Your task to perform on an android device: Open location settings Image 0: 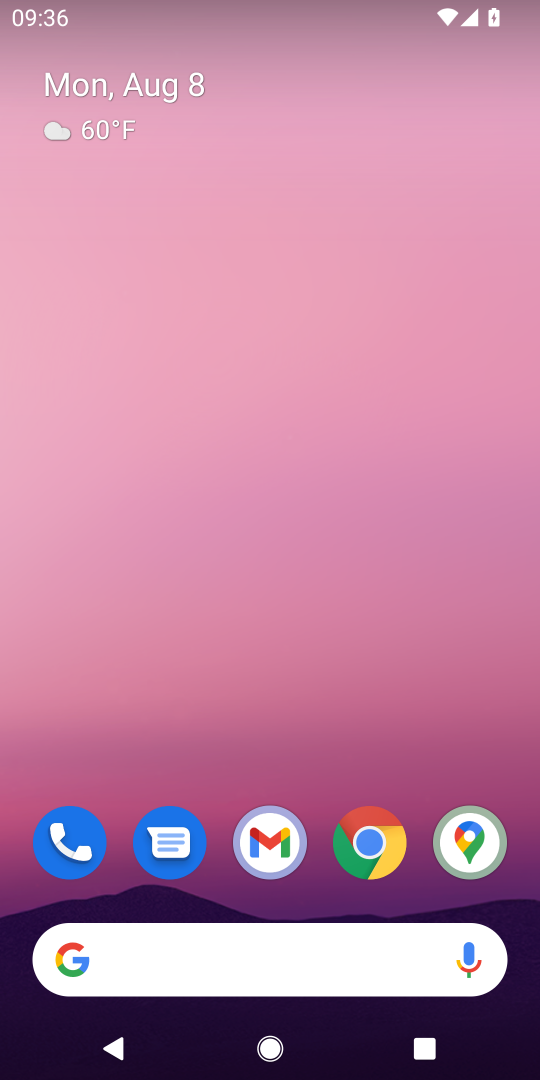
Step 0: click (365, 104)
Your task to perform on an android device: Open location settings Image 1: 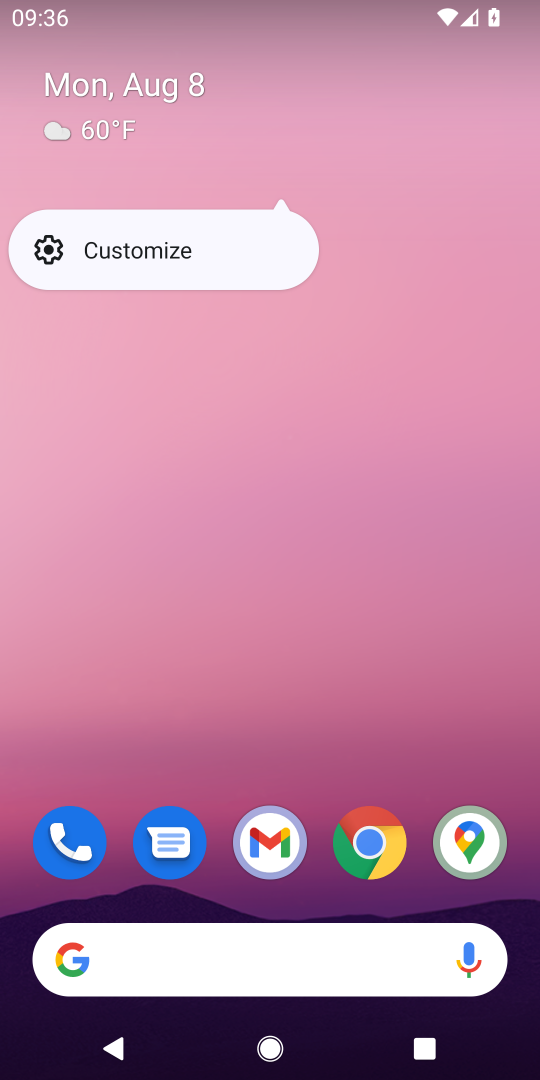
Step 1: click (217, 637)
Your task to perform on an android device: Open location settings Image 2: 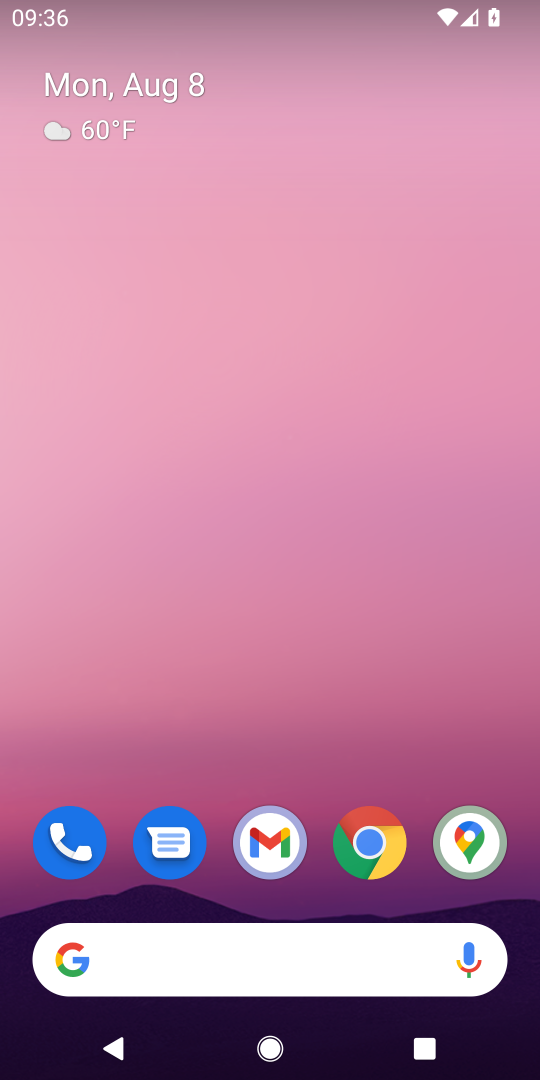
Step 2: drag from (266, 716) to (289, 23)
Your task to perform on an android device: Open location settings Image 3: 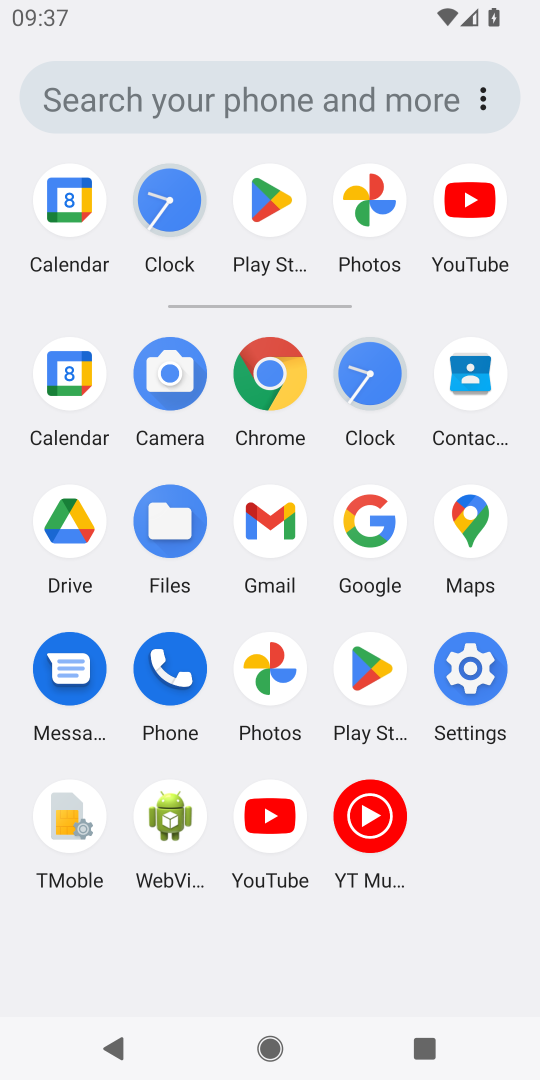
Step 3: click (460, 664)
Your task to perform on an android device: Open location settings Image 4: 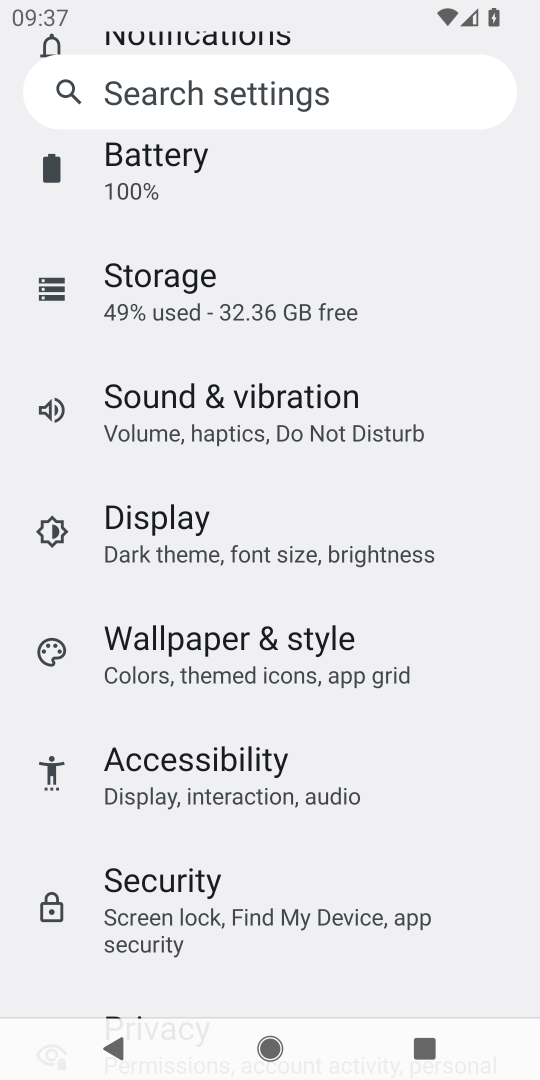
Step 4: drag from (219, 887) to (219, 140)
Your task to perform on an android device: Open location settings Image 5: 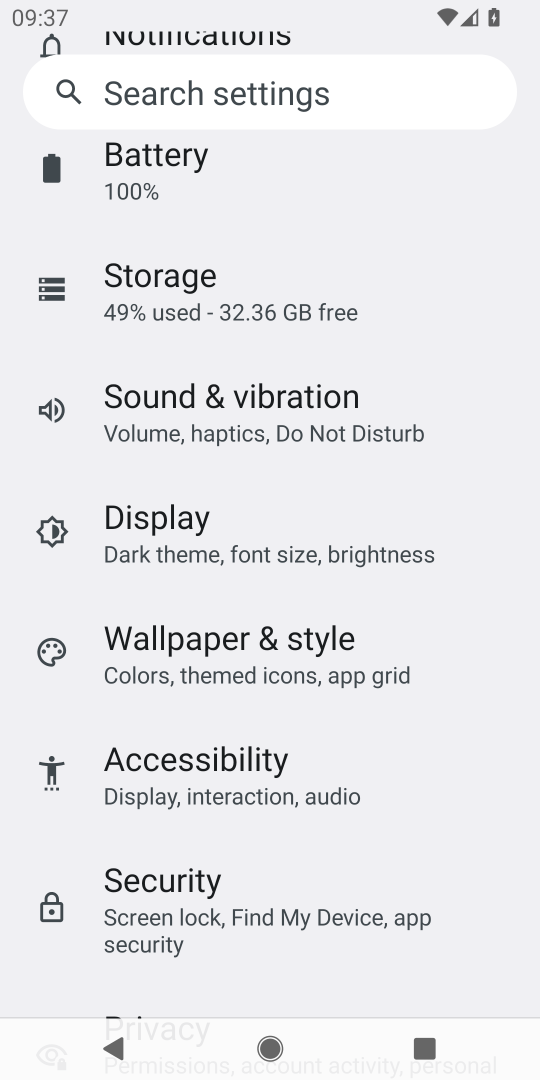
Step 5: drag from (288, 396) to (290, 47)
Your task to perform on an android device: Open location settings Image 6: 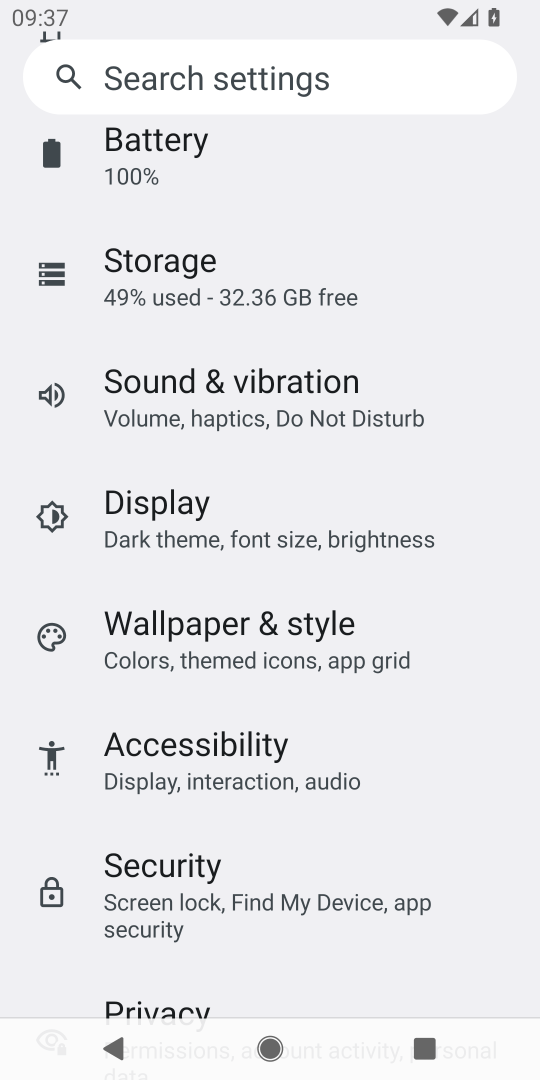
Step 6: drag from (222, 877) to (222, 455)
Your task to perform on an android device: Open location settings Image 7: 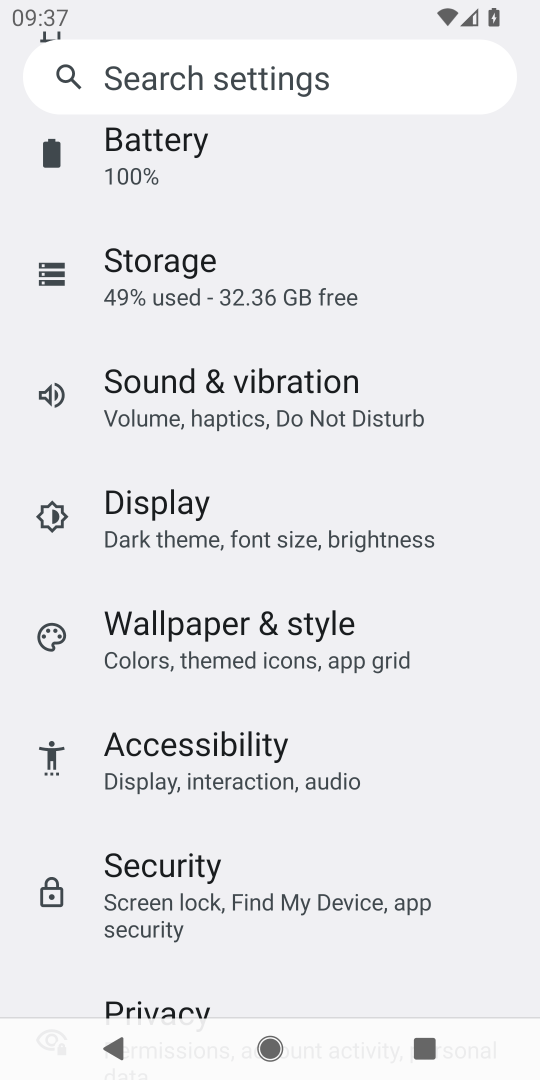
Step 7: drag from (245, 984) to (187, 352)
Your task to perform on an android device: Open location settings Image 8: 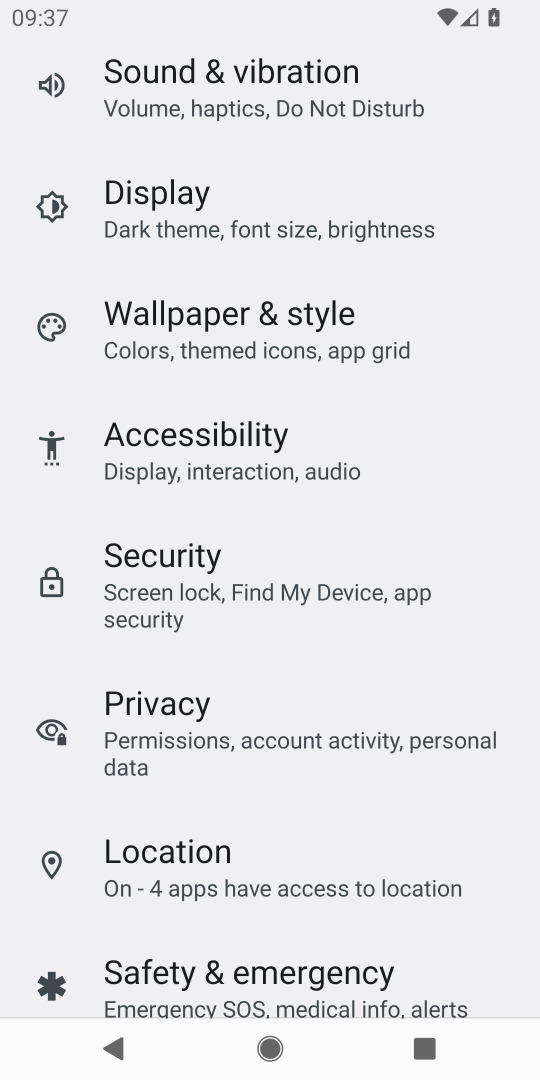
Step 8: click (185, 875)
Your task to perform on an android device: Open location settings Image 9: 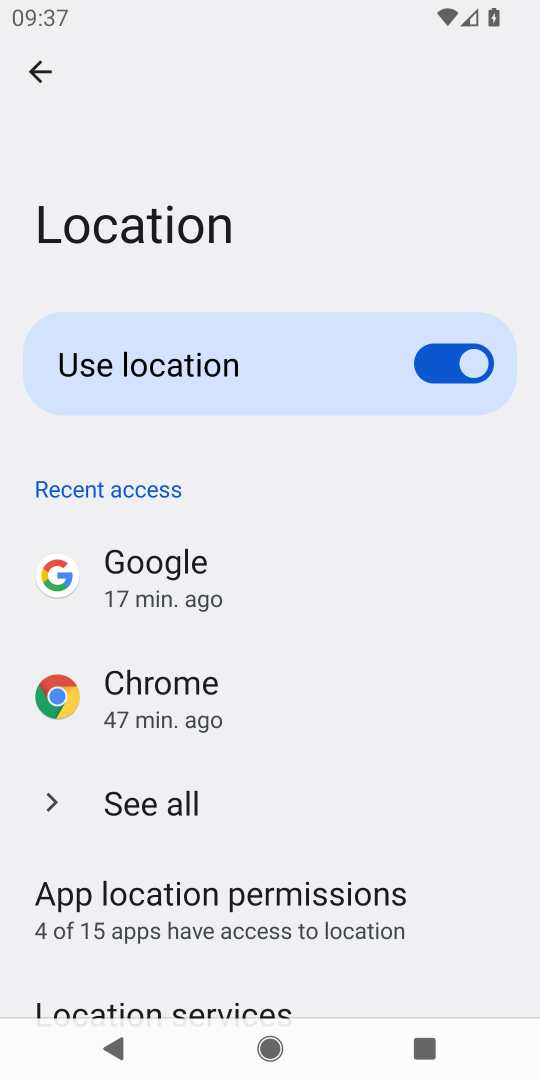
Step 9: task complete